Your task to perform on an android device: refresh tabs in the chrome app Image 0: 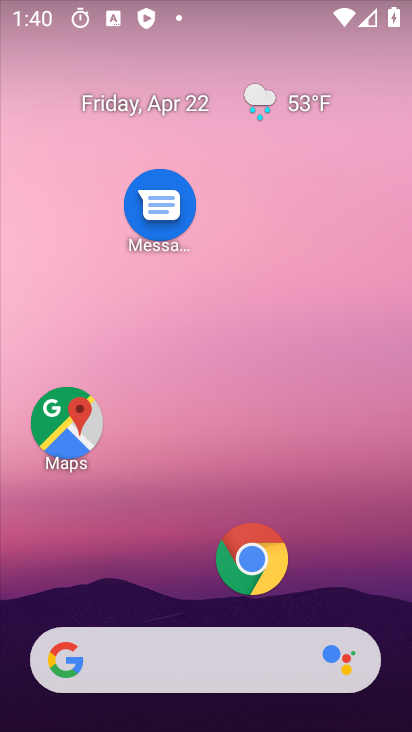
Step 0: click (243, 566)
Your task to perform on an android device: refresh tabs in the chrome app Image 1: 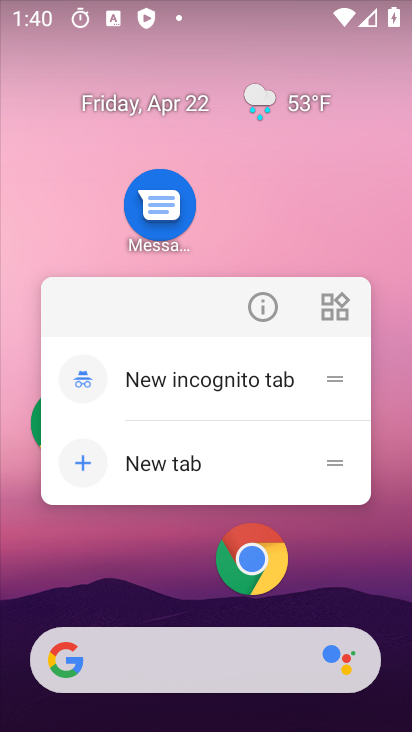
Step 1: click (250, 568)
Your task to perform on an android device: refresh tabs in the chrome app Image 2: 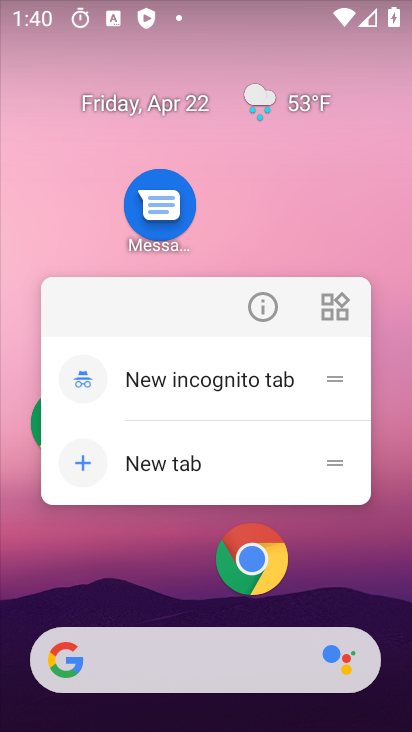
Step 2: click (260, 557)
Your task to perform on an android device: refresh tabs in the chrome app Image 3: 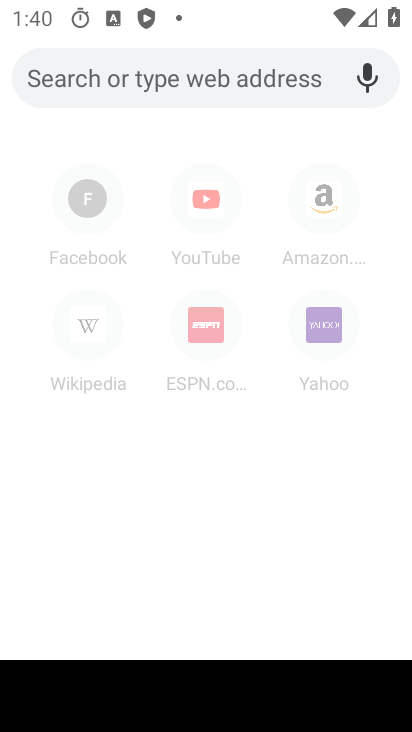
Step 3: click (292, 487)
Your task to perform on an android device: refresh tabs in the chrome app Image 4: 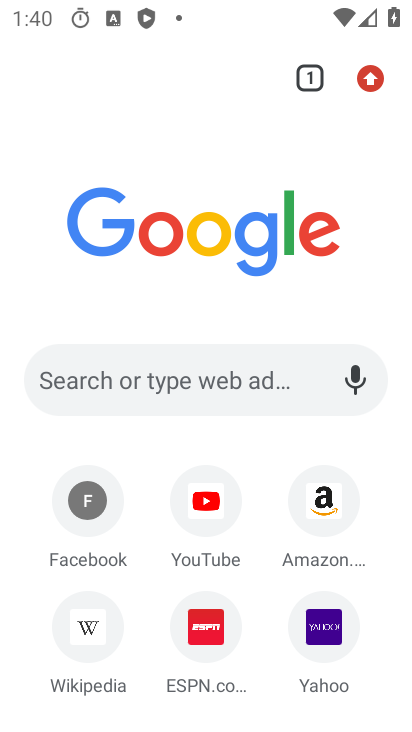
Step 4: click (361, 78)
Your task to perform on an android device: refresh tabs in the chrome app Image 5: 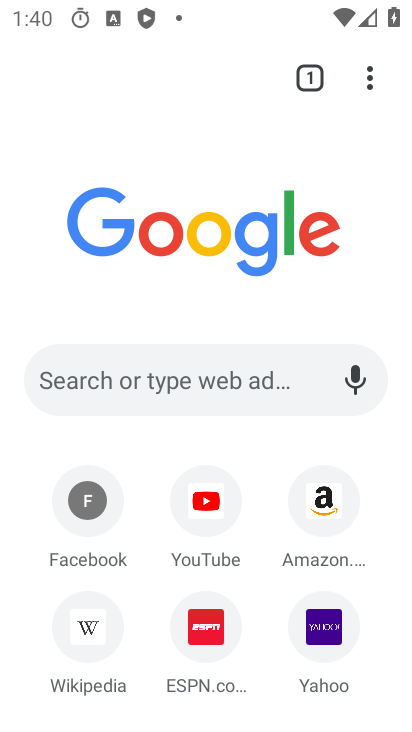
Step 5: click (372, 78)
Your task to perform on an android device: refresh tabs in the chrome app Image 6: 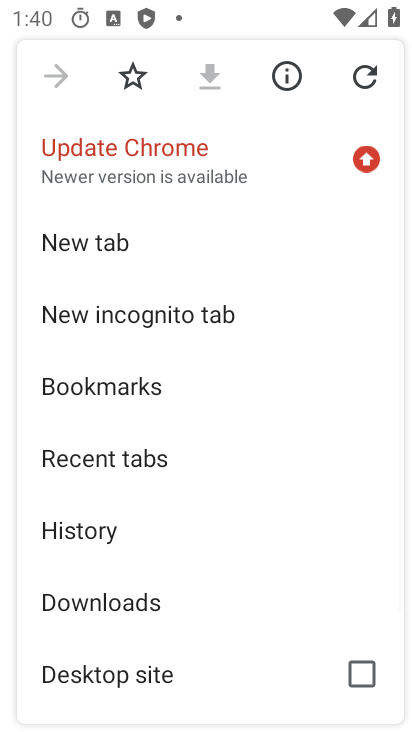
Step 6: click (372, 78)
Your task to perform on an android device: refresh tabs in the chrome app Image 7: 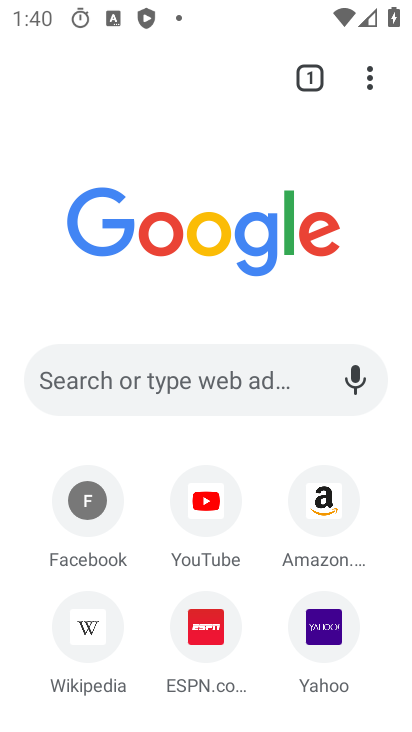
Step 7: task complete